Your task to perform on an android device: turn on sleep mode Image 0: 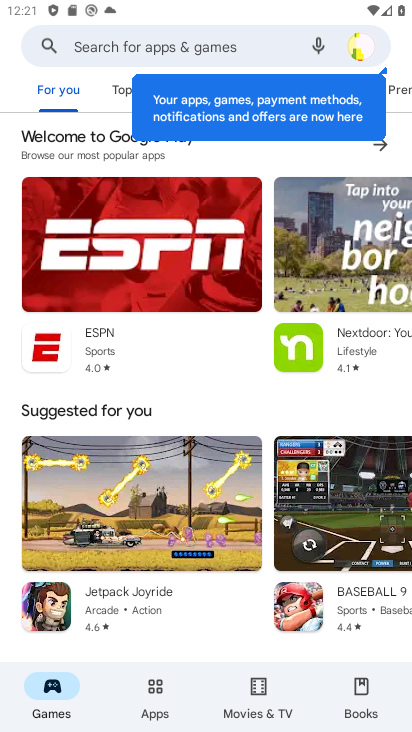
Step 0: press home button
Your task to perform on an android device: turn on sleep mode Image 1: 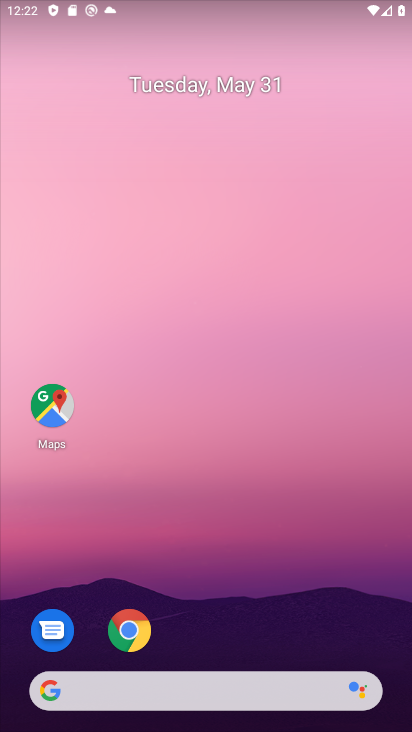
Step 1: drag from (247, 321) to (258, 223)
Your task to perform on an android device: turn on sleep mode Image 2: 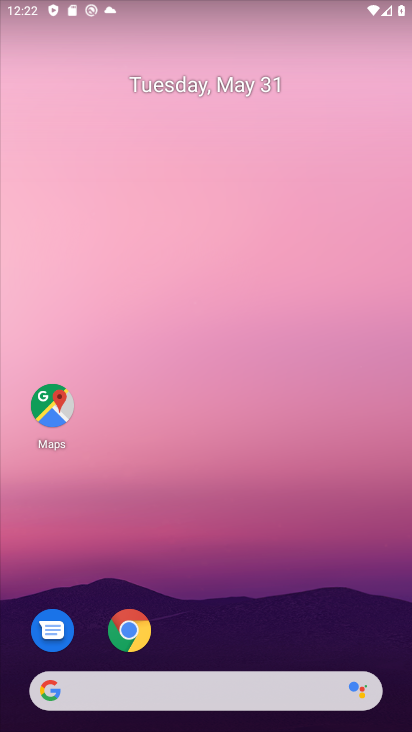
Step 2: drag from (187, 474) to (225, 184)
Your task to perform on an android device: turn on sleep mode Image 3: 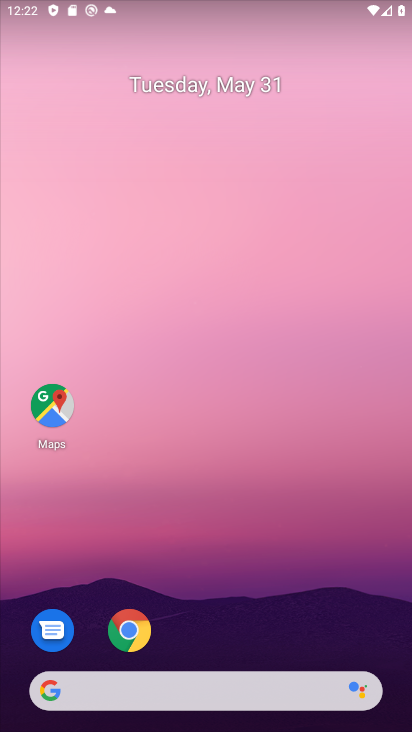
Step 3: drag from (243, 648) to (289, 157)
Your task to perform on an android device: turn on sleep mode Image 4: 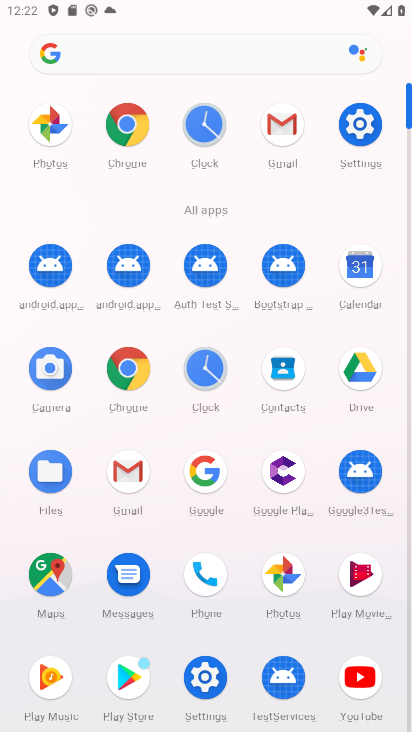
Step 4: click (361, 127)
Your task to perform on an android device: turn on sleep mode Image 5: 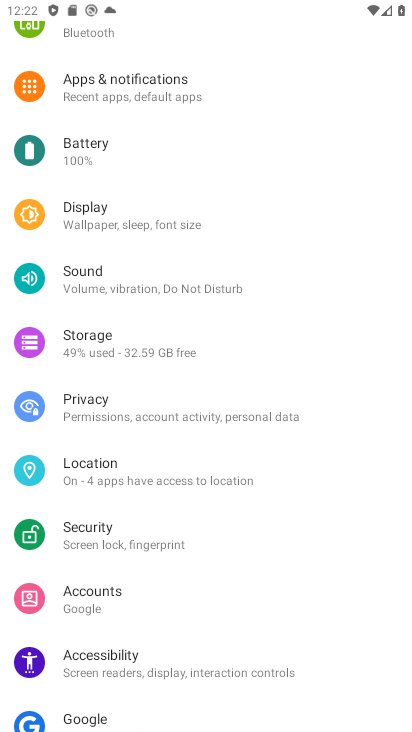
Step 5: drag from (136, 327) to (170, 540)
Your task to perform on an android device: turn on sleep mode Image 6: 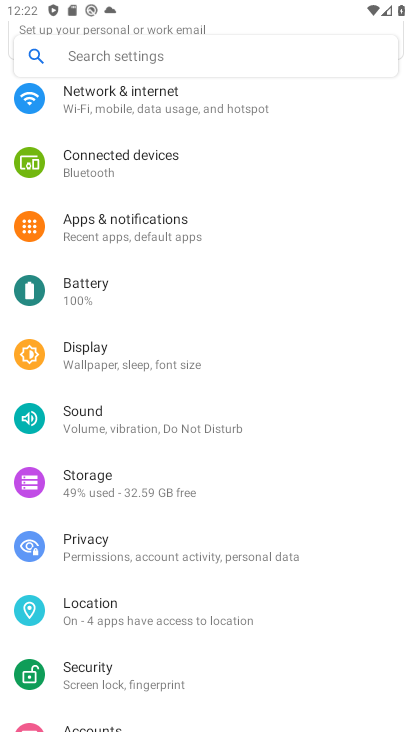
Step 6: click (122, 315)
Your task to perform on an android device: turn on sleep mode Image 7: 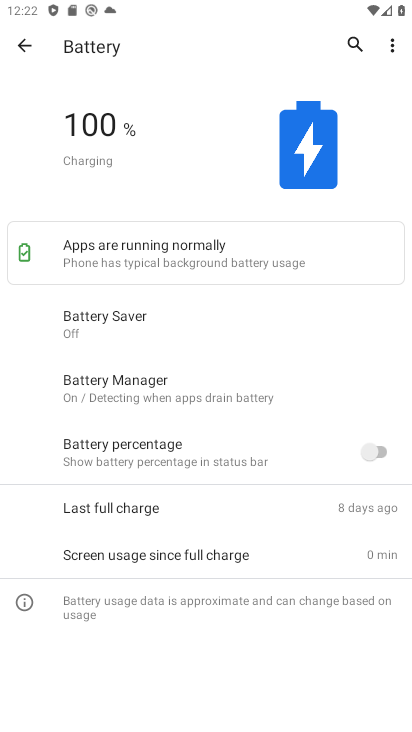
Step 7: click (27, 47)
Your task to perform on an android device: turn on sleep mode Image 8: 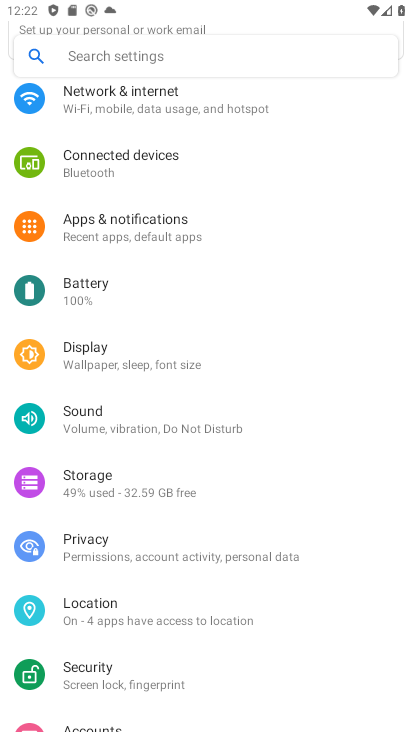
Step 8: click (116, 348)
Your task to perform on an android device: turn on sleep mode Image 9: 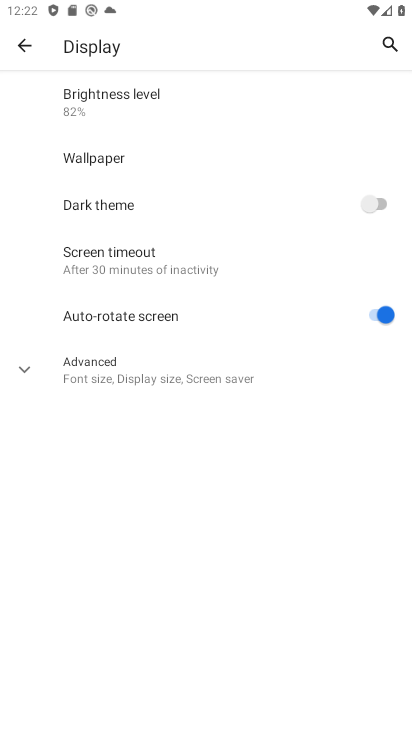
Step 9: task complete